Your task to perform on an android device: Search for Mexican restaurants on Maps Image 0: 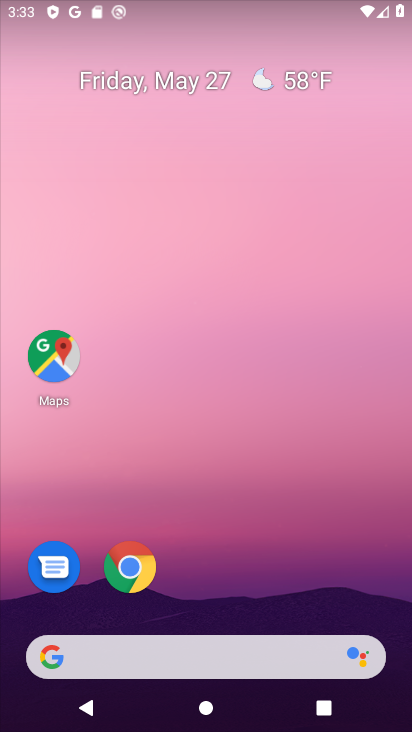
Step 0: click (54, 350)
Your task to perform on an android device: Search for Mexican restaurants on Maps Image 1: 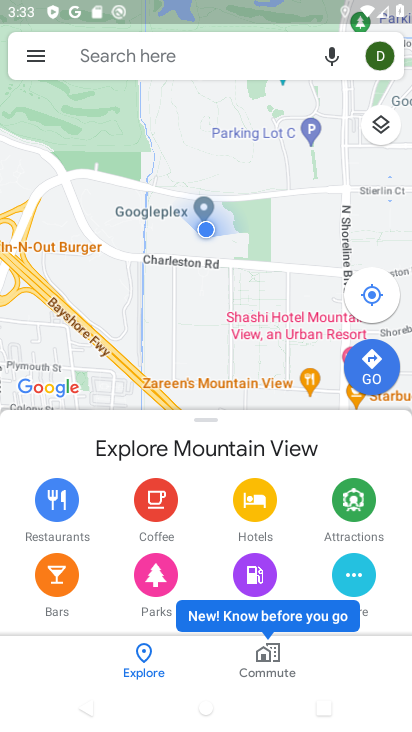
Step 1: click (108, 51)
Your task to perform on an android device: Search for Mexican restaurants on Maps Image 2: 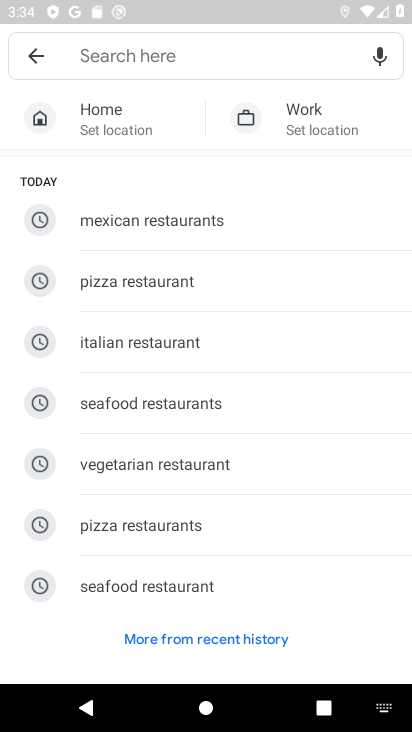
Step 2: click (169, 226)
Your task to perform on an android device: Search for Mexican restaurants on Maps Image 3: 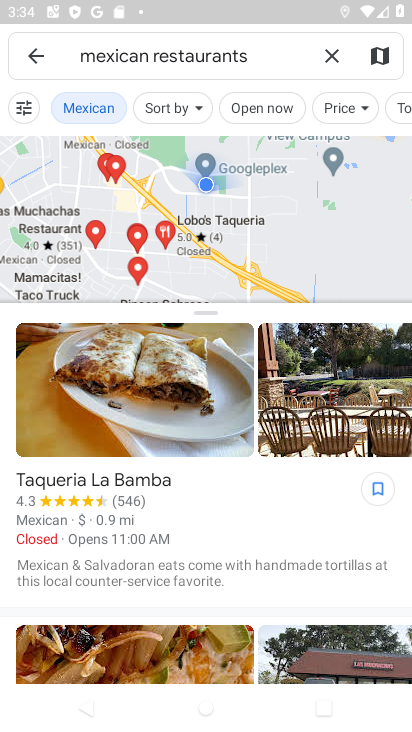
Step 3: task complete